Your task to perform on an android device: manage bookmarks in the chrome app Image 0: 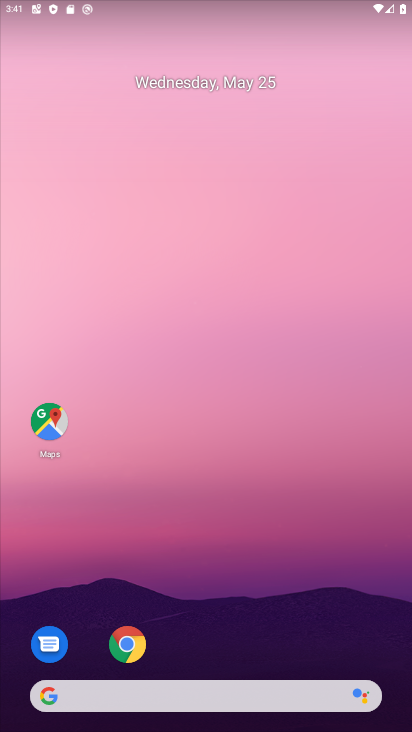
Step 0: click (119, 640)
Your task to perform on an android device: manage bookmarks in the chrome app Image 1: 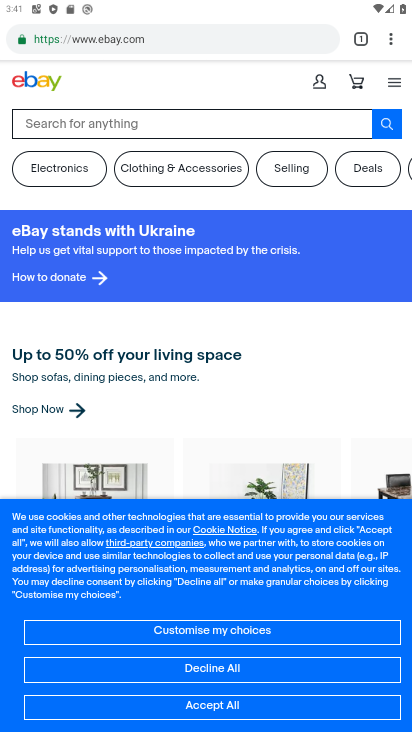
Step 1: click (392, 38)
Your task to perform on an android device: manage bookmarks in the chrome app Image 2: 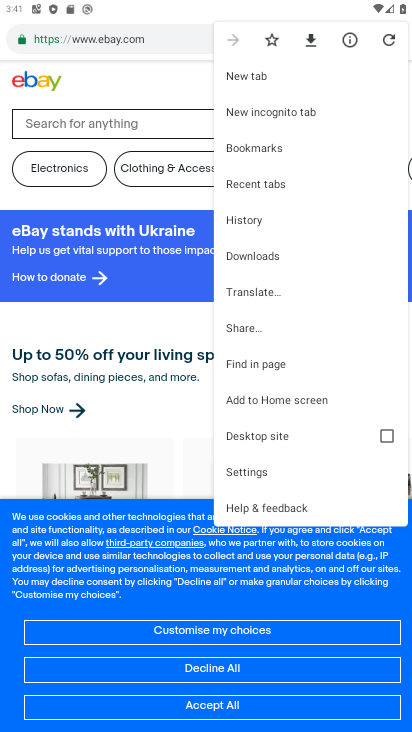
Step 2: click (252, 146)
Your task to perform on an android device: manage bookmarks in the chrome app Image 3: 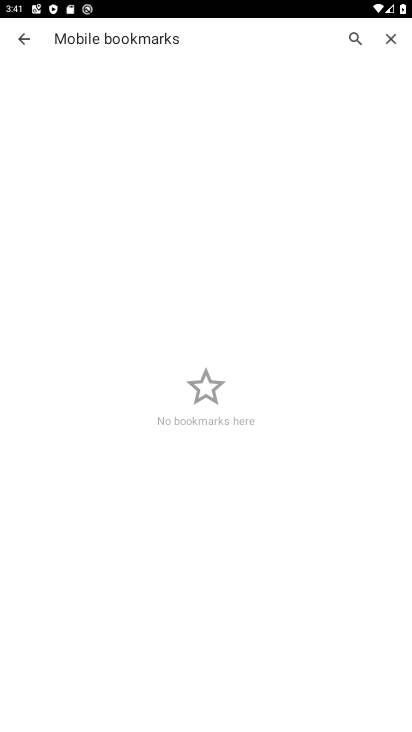
Step 3: task complete